Your task to perform on an android device: turn on the 12-hour format for clock Image 0: 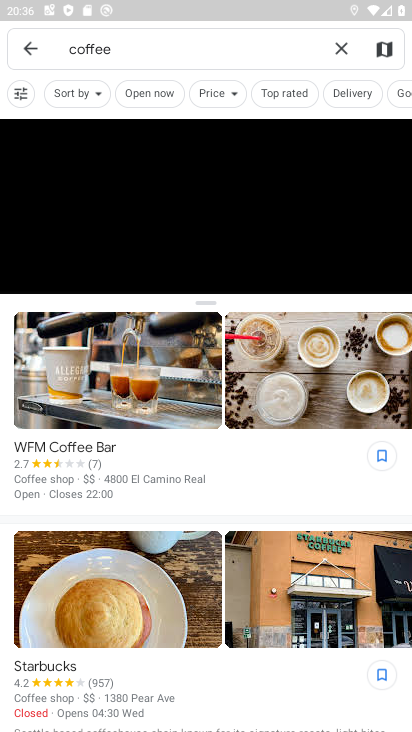
Step 0: press home button
Your task to perform on an android device: turn on the 12-hour format for clock Image 1: 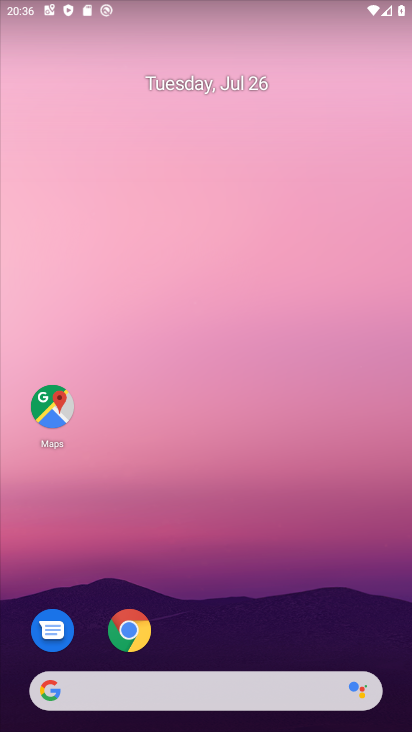
Step 1: drag from (275, 638) to (281, 132)
Your task to perform on an android device: turn on the 12-hour format for clock Image 2: 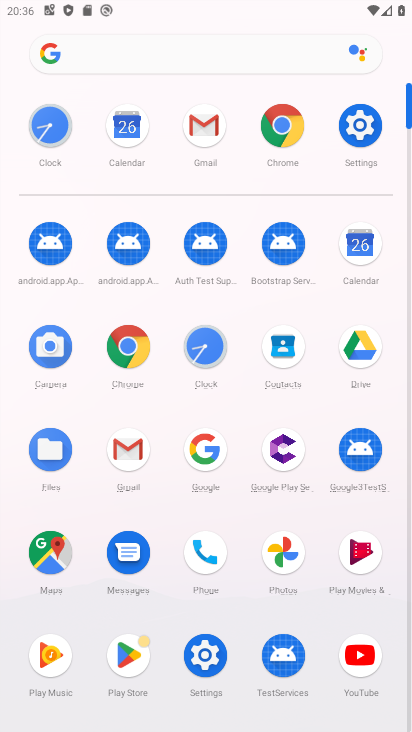
Step 2: click (39, 129)
Your task to perform on an android device: turn on the 12-hour format for clock Image 3: 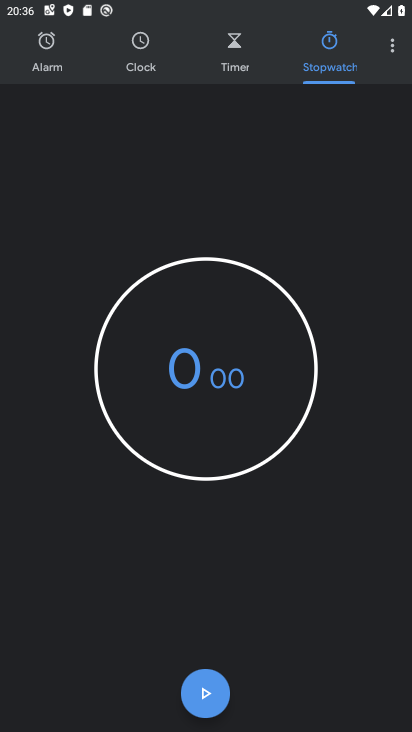
Step 3: click (390, 43)
Your task to perform on an android device: turn on the 12-hour format for clock Image 4: 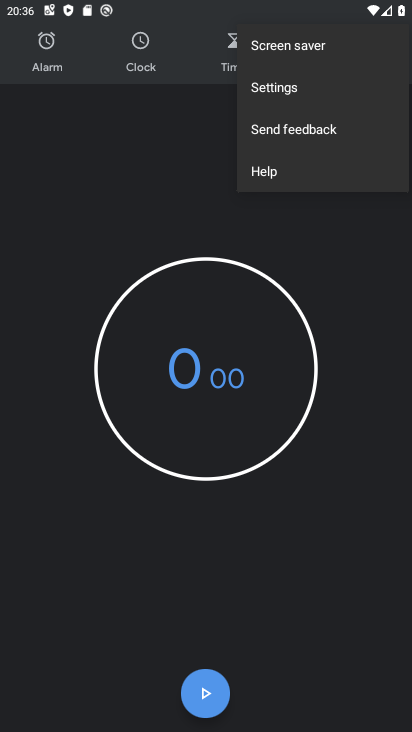
Step 4: click (299, 99)
Your task to perform on an android device: turn on the 12-hour format for clock Image 5: 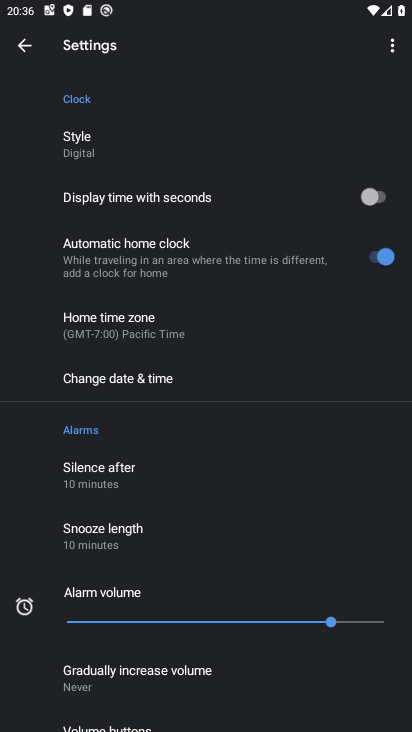
Step 5: click (118, 386)
Your task to perform on an android device: turn on the 12-hour format for clock Image 6: 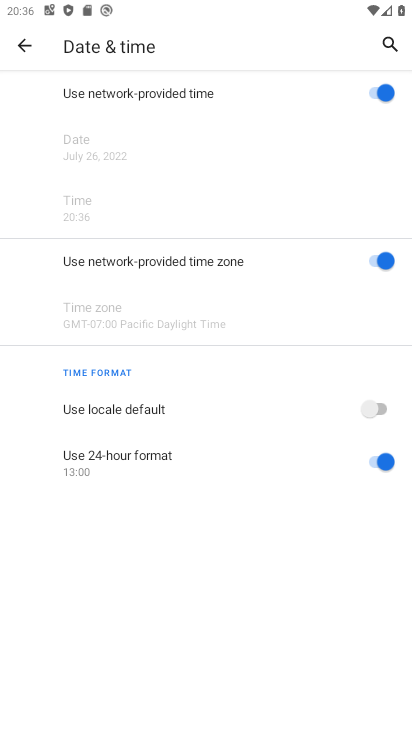
Step 6: click (375, 462)
Your task to perform on an android device: turn on the 12-hour format for clock Image 7: 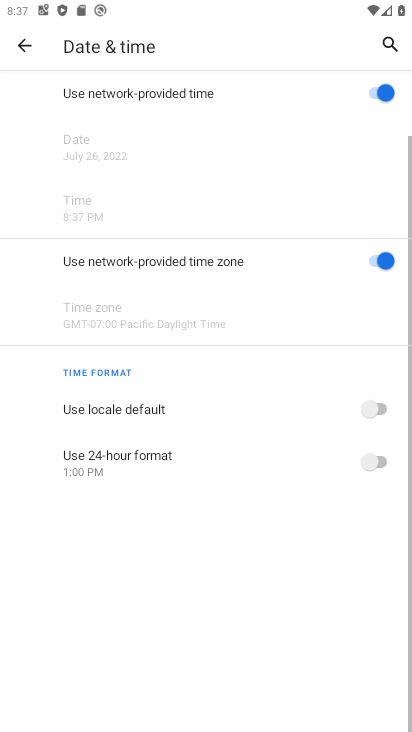
Step 7: task complete